Your task to perform on an android device: Search for the new Apple Watch on Best Buy Image 0: 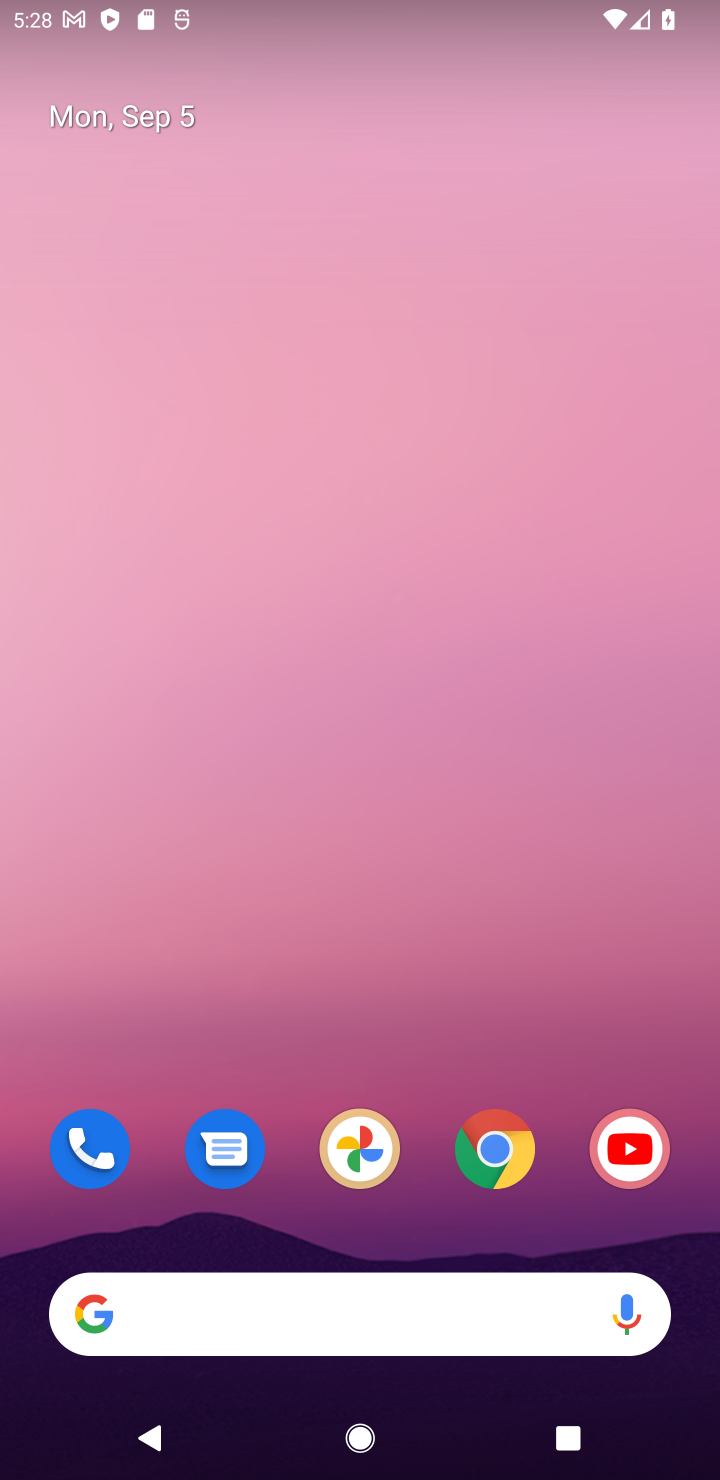
Step 0: click (489, 1148)
Your task to perform on an android device: Search for the new Apple Watch on Best Buy Image 1: 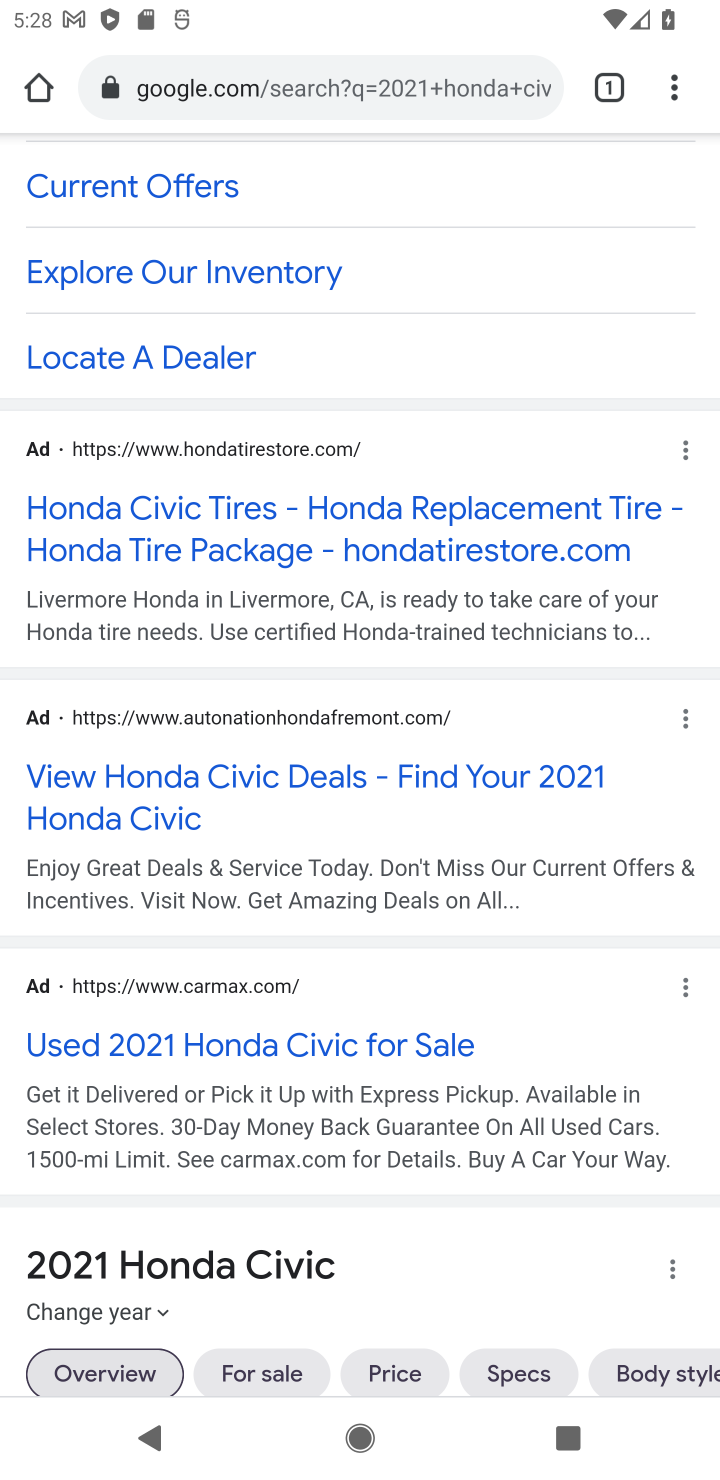
Step 1: click (342, 66)
Your task to perform on an android device: Search for the new Apple Watch on Best Buy Image 2: 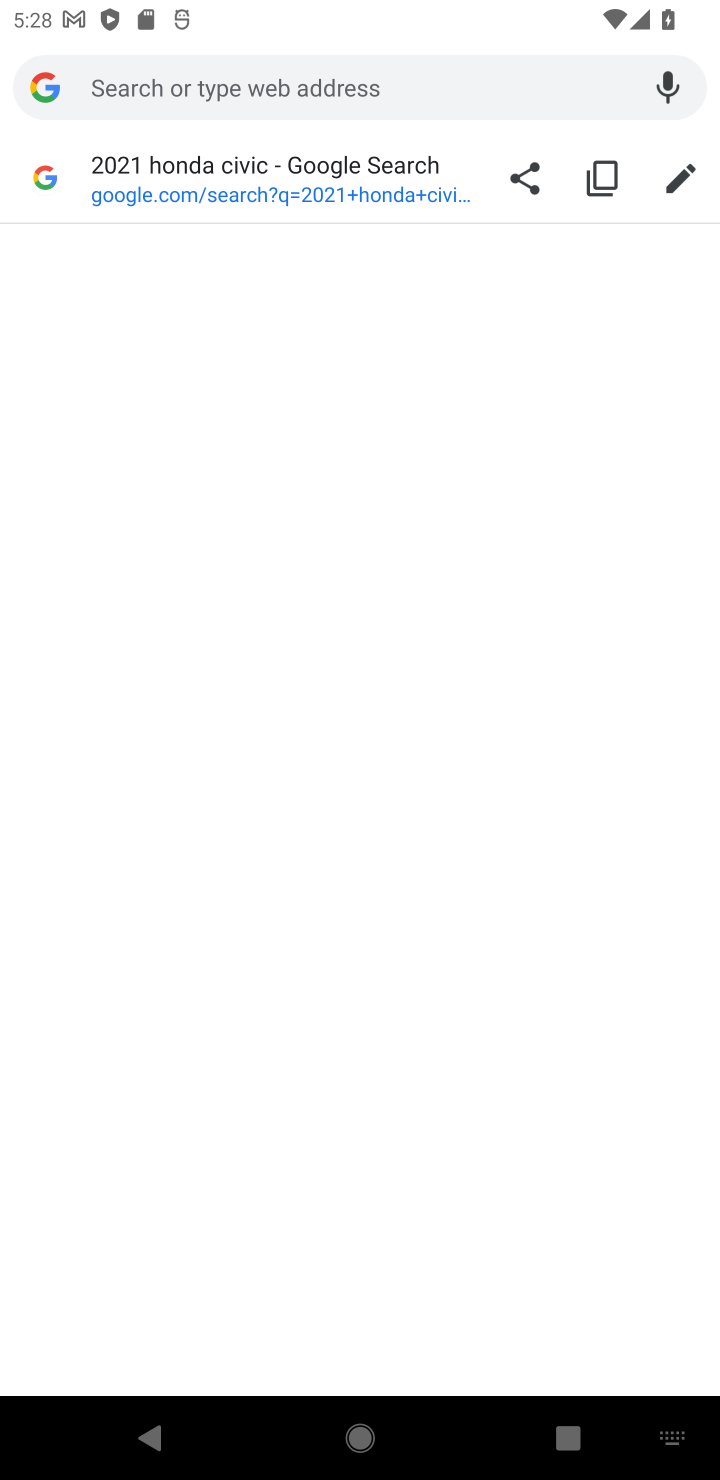
Step 2: type " Best Buy"
Your task to perform on an android device: Search for the new Apple Watch on Best Buy Image 3: 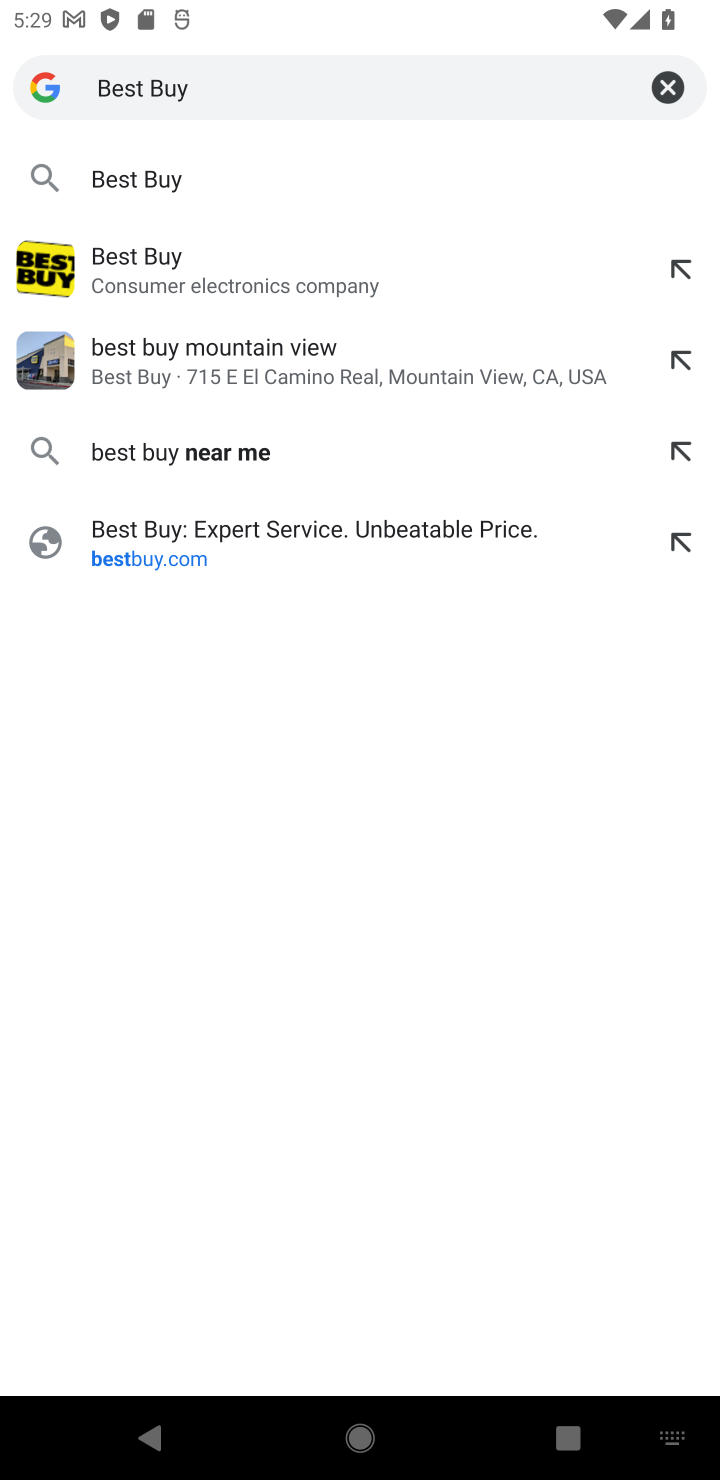
Step 3: click (163, 263)
Your task to perform on an android device: Search for the new Apple Watch on Best Buy Image 4: 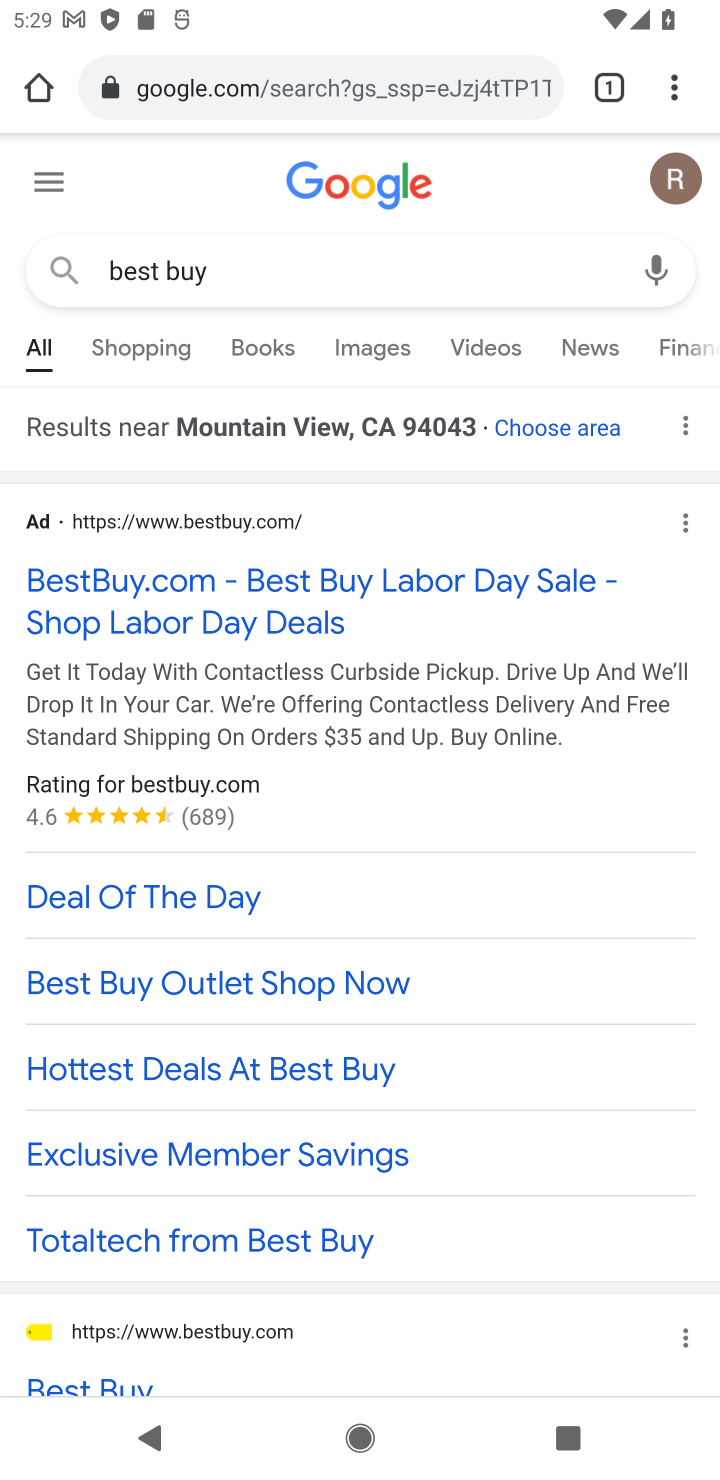
Step 4: click (195, 601)
Your task to perform on an android device: Search for the new Apple Watch on Best Buy Image 5: 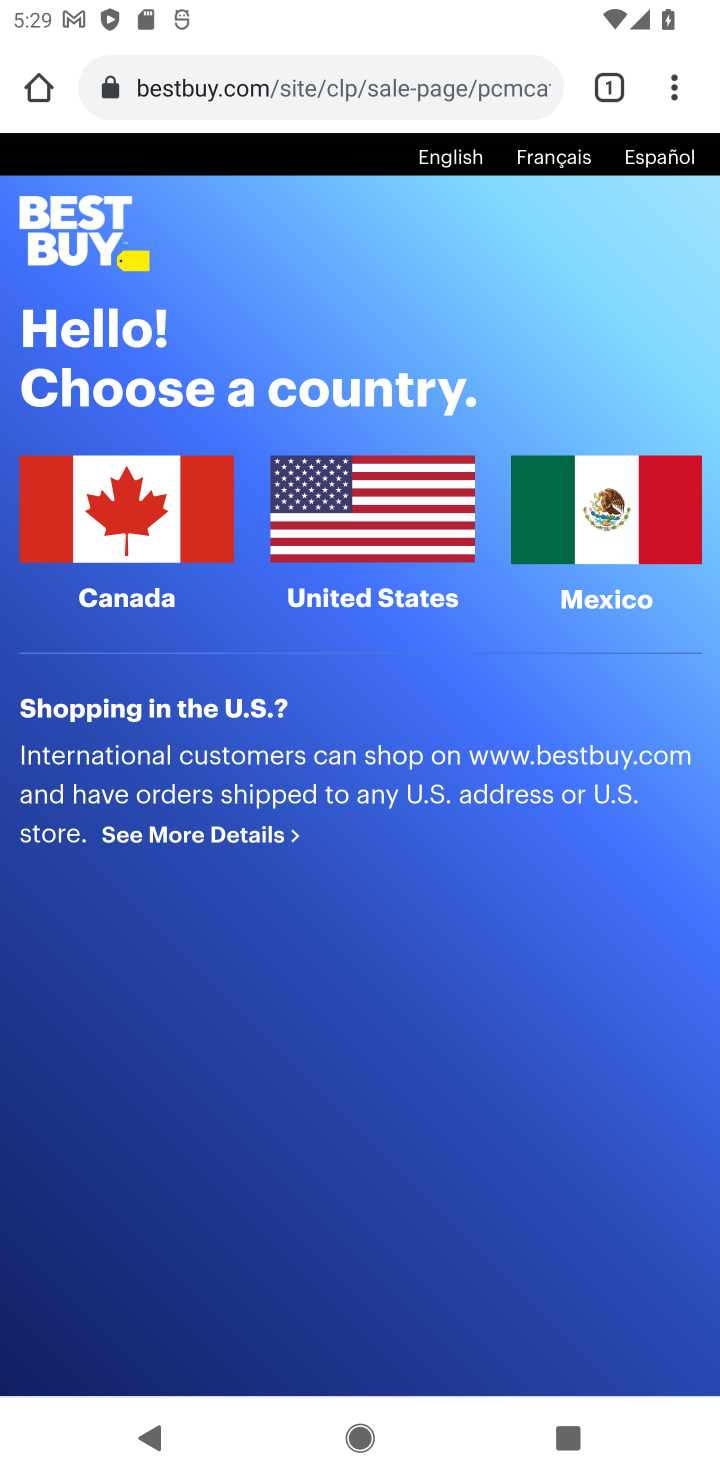
Step 5: click (337, 501)
Your task to perform on an android device: Search for the new Apple Watch on Best Buy Image 6: 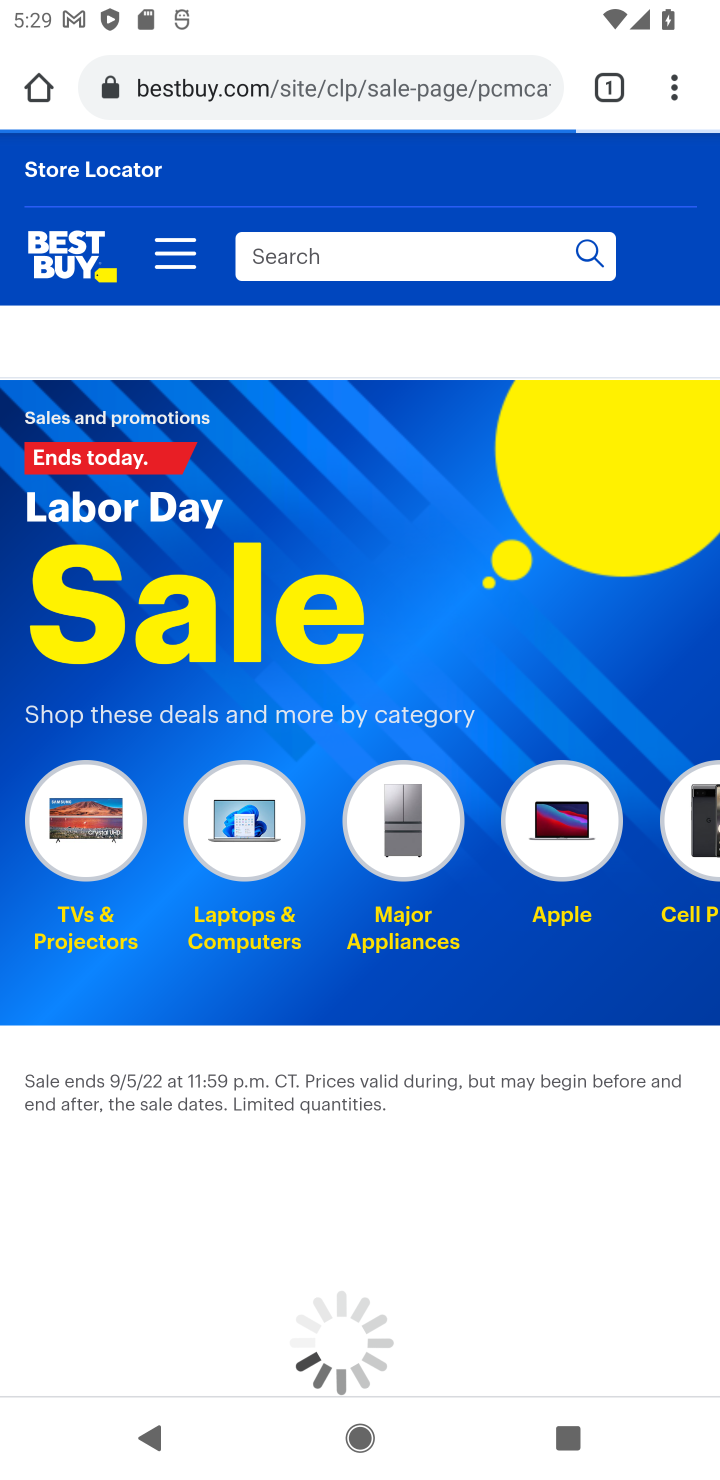
Step 6: click (320, 247)
Your task to perform on an android device: Search for the new Apple Watch on Best Buy Image 7: 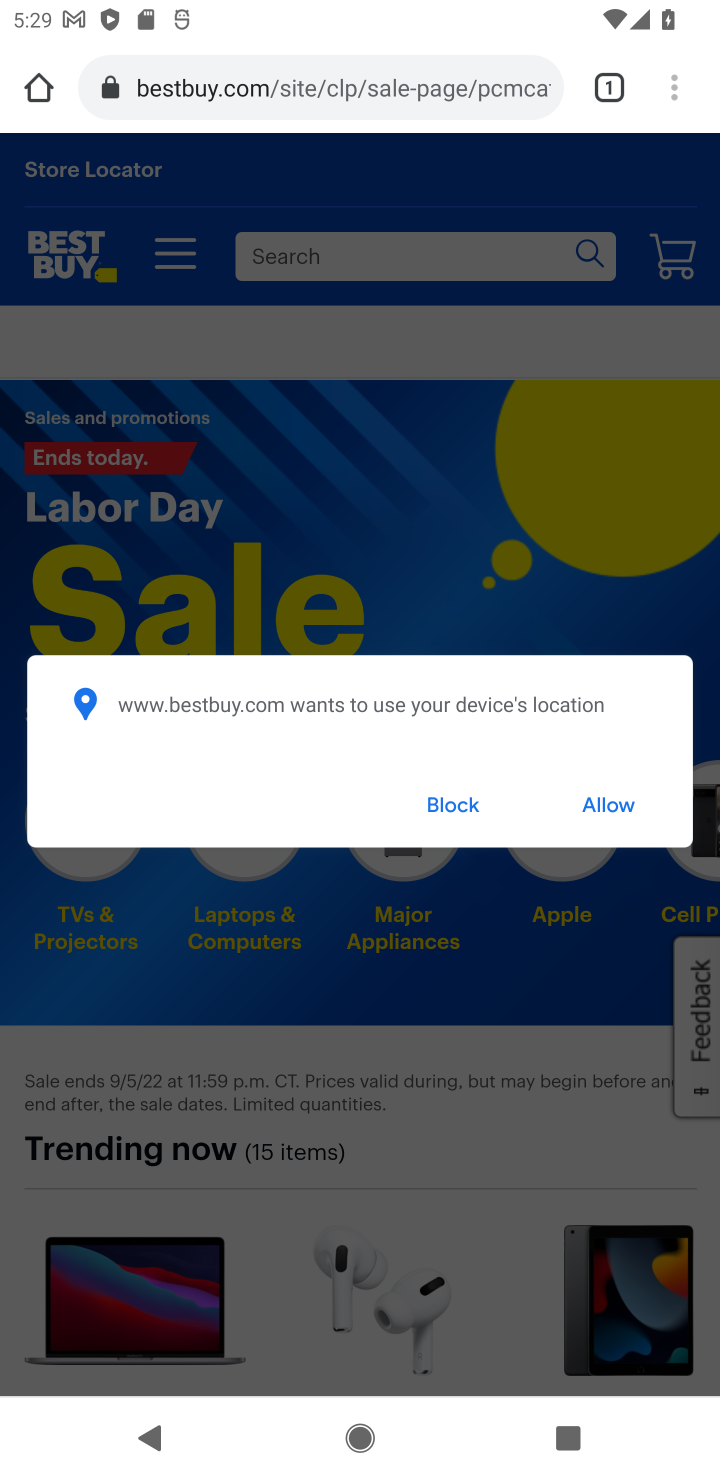
Step 7: click (601, 810)
Your task to perform on an android device: Search for the new Apple Watch on Best Buy Image 8: 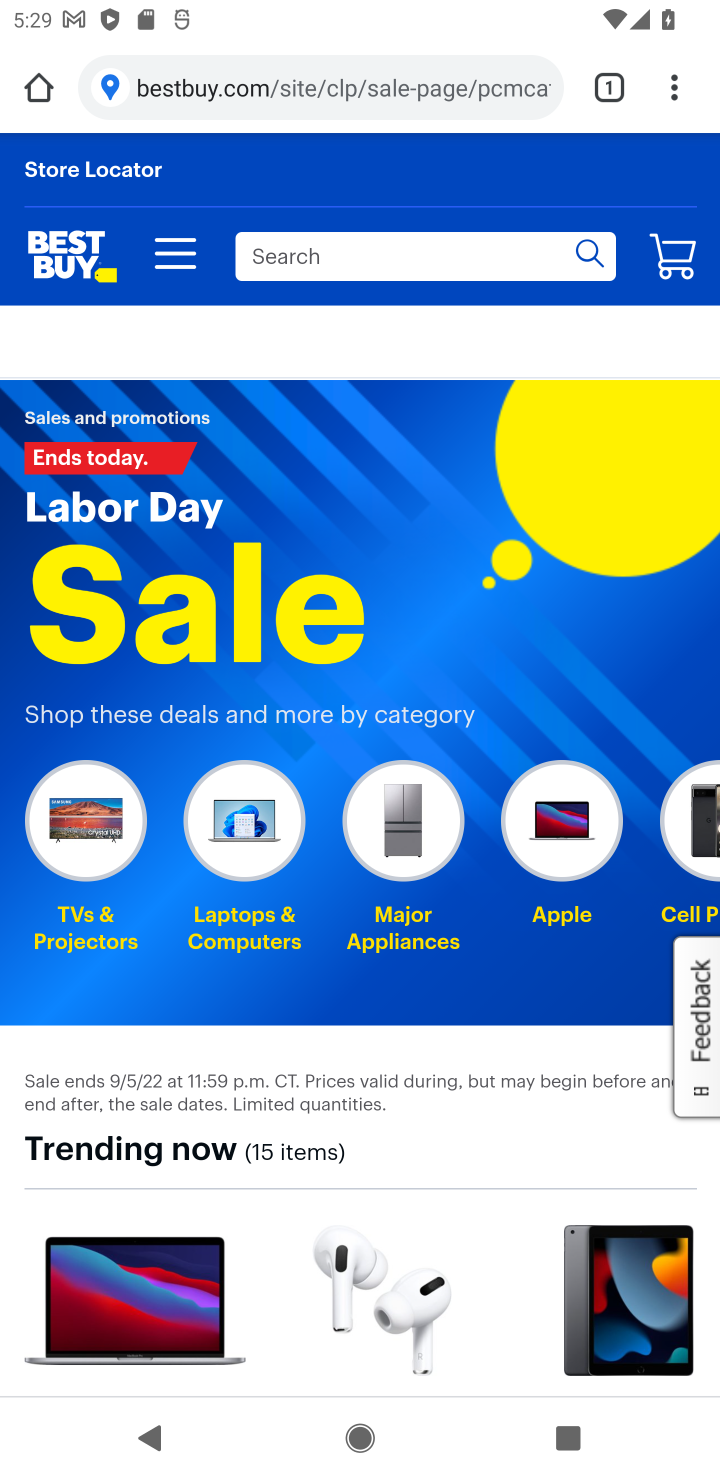
Step 8: click (341, 257)
Your task to perform on an android device: Search for the new Apple Watch on Best Buy Image 9: 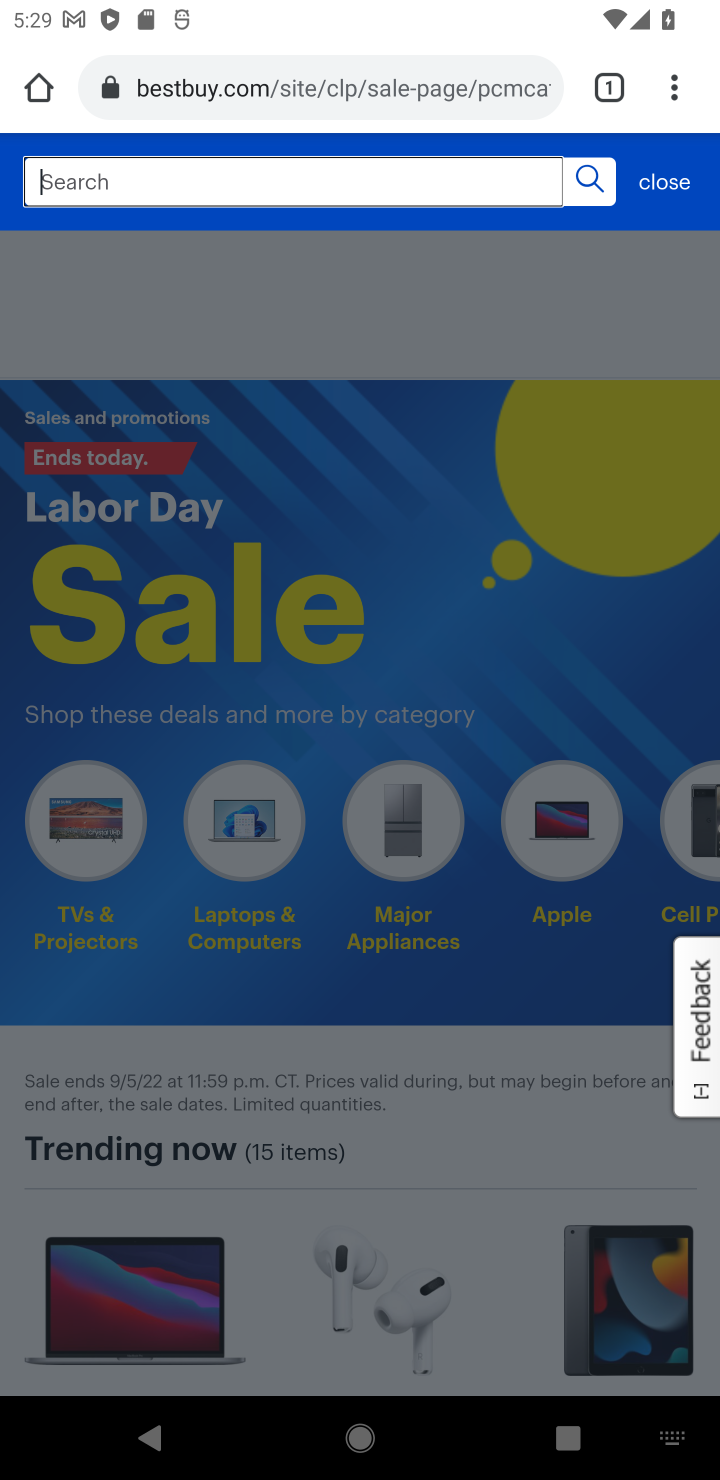
Step 9: type " Apple Watch"
Your task to perform on an android device: Search for the new Apple Watch on Best Buy Image 10: 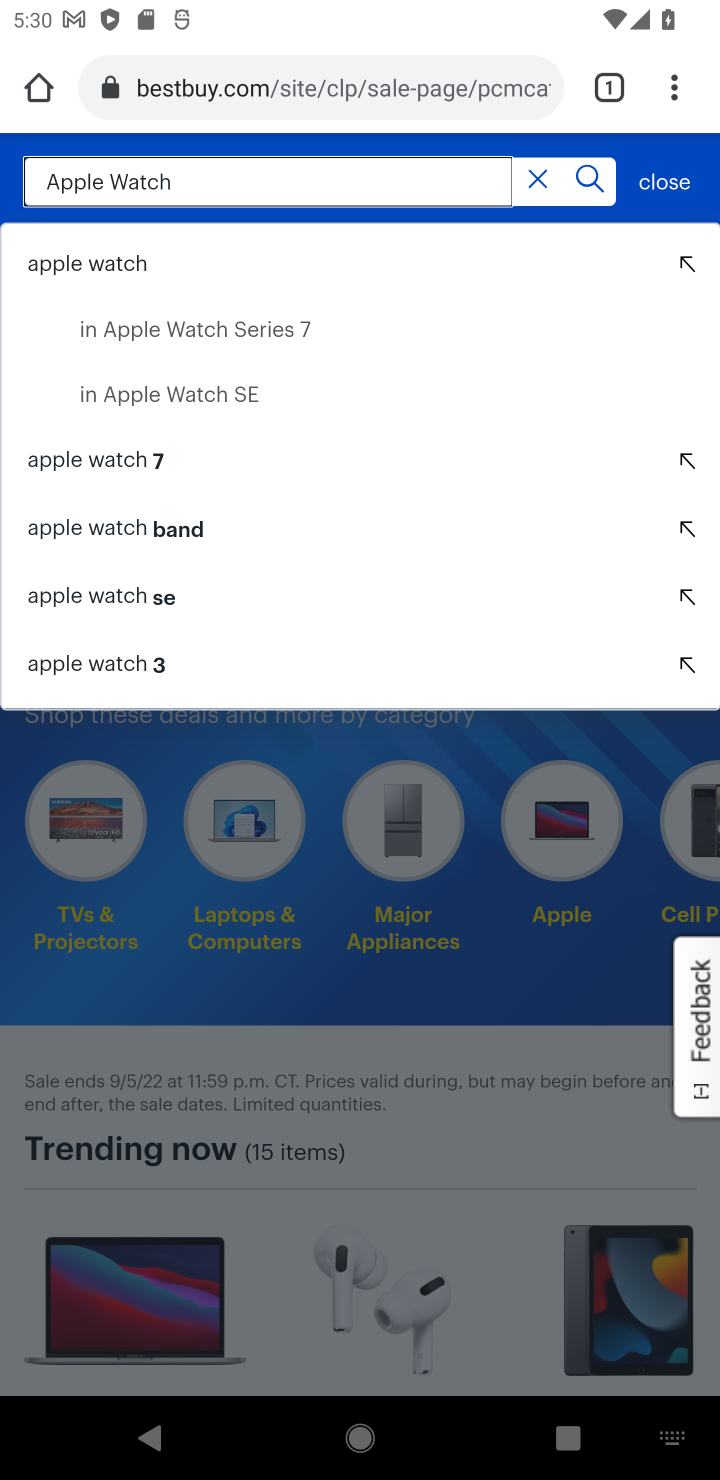
Step 10: click (589, 173)
Your task to perform on an android device: Search for the new Apple Watch on Best Buy Image 11: 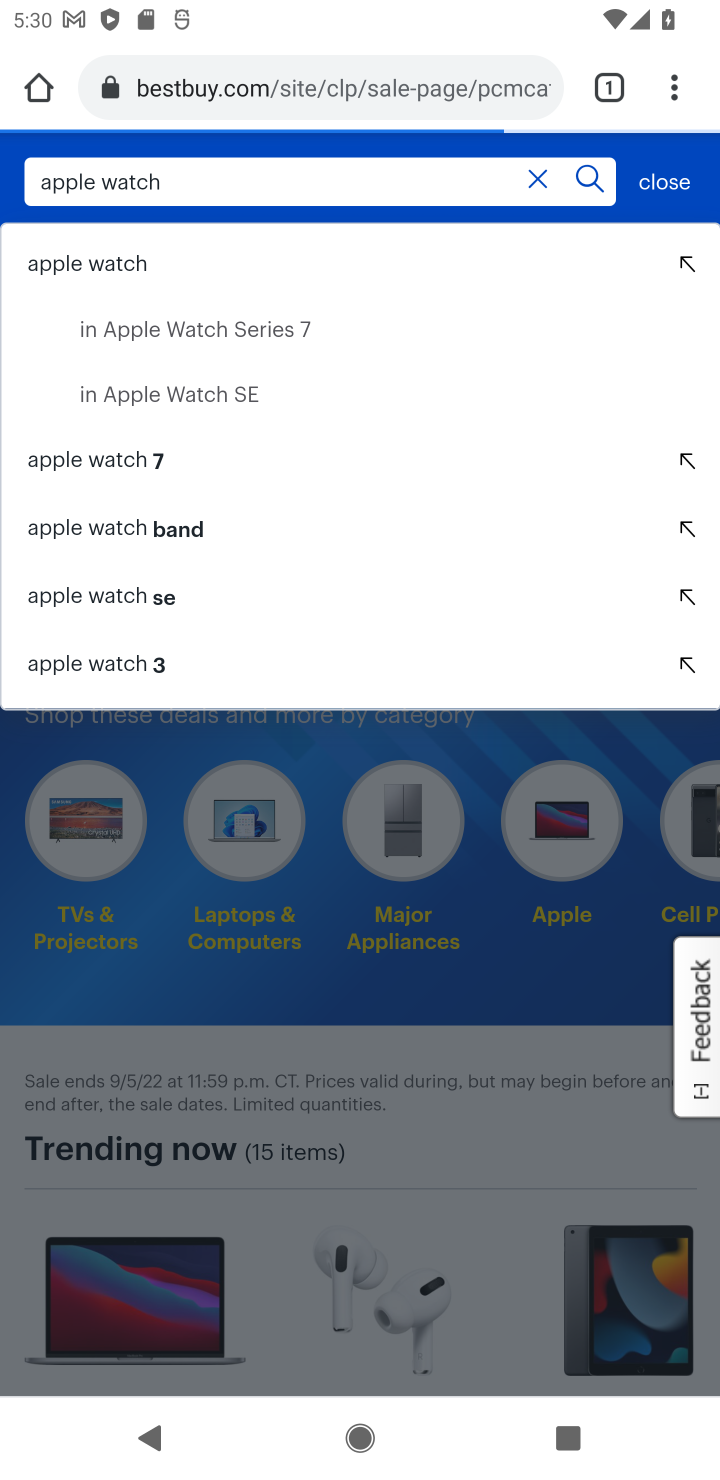
Step 11: click (584, 173)
Your task to perform on an android device: Search for the new Apple Watch on Best Buy Image 12: 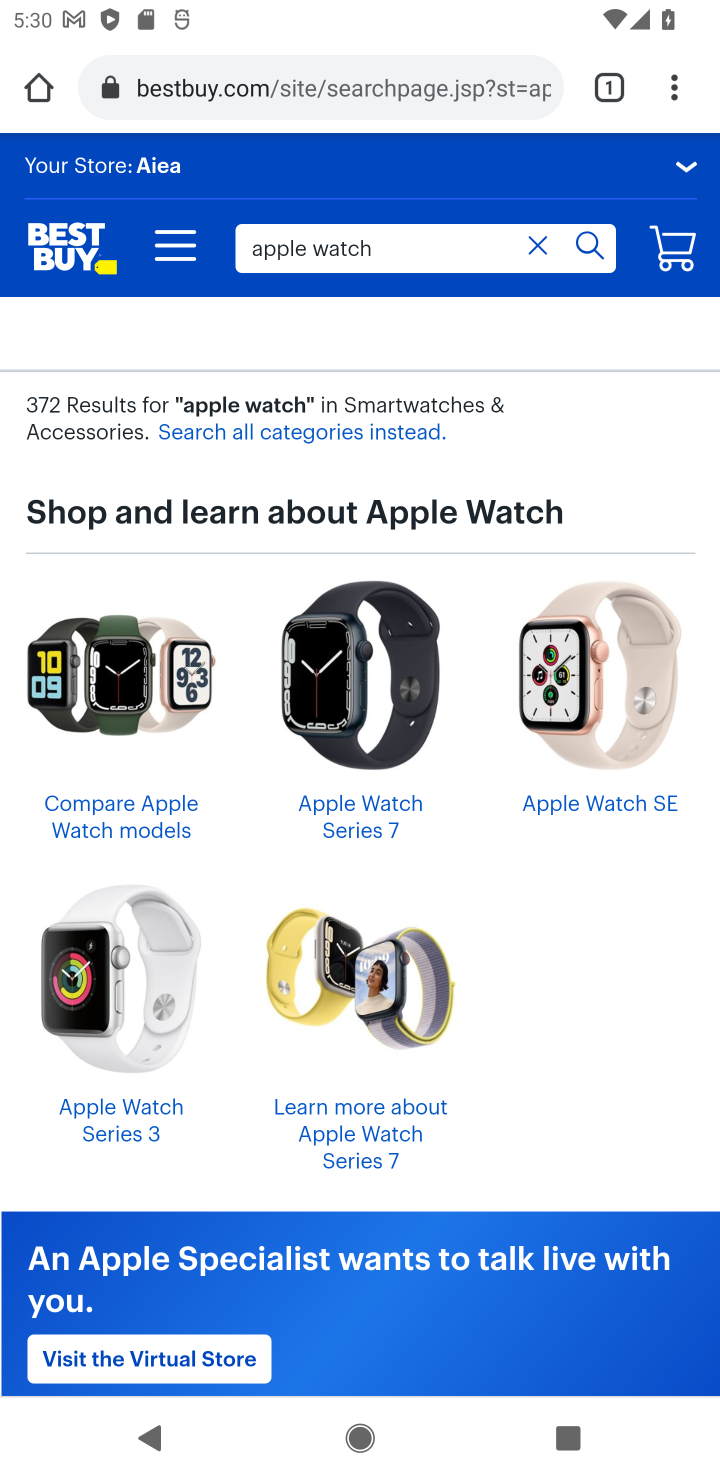
Step 12: task complete